Your task to perform on an android device: change keyboard looks Image 0: 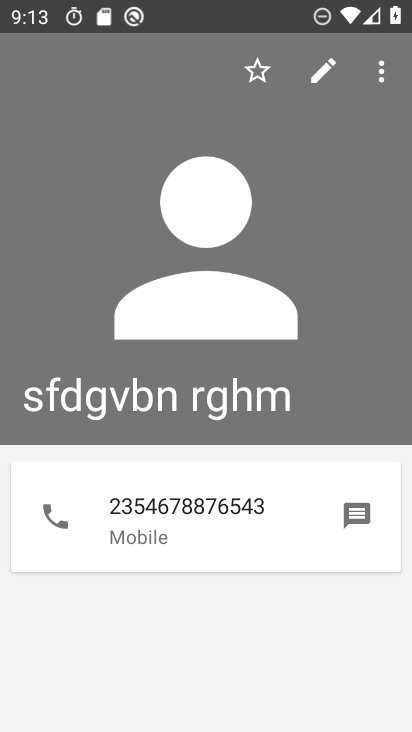
Step 0: press home button
Your task to perform on an android device: change keyboard looks Image 1: 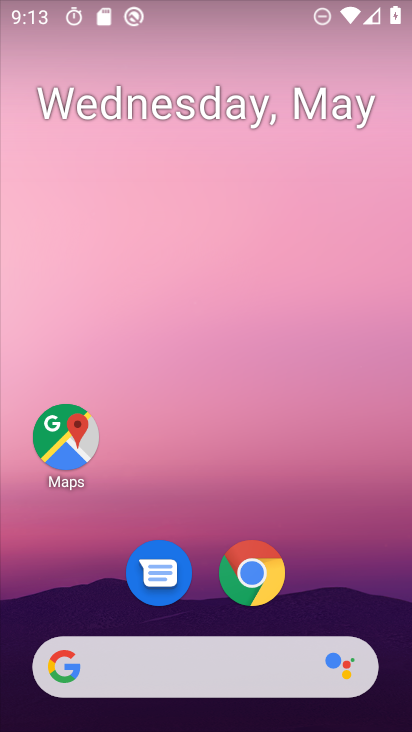
Step 1: drag from (391, 643) to (348, 146)
Your task to perform on an android device: change keyboard looks Image 2: 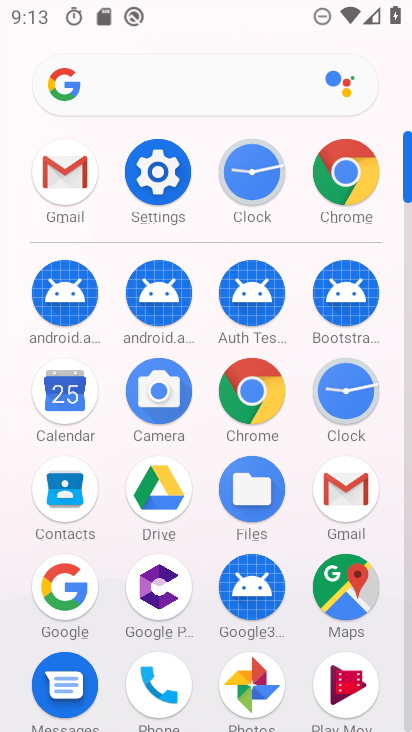
Step 2: click (157, 181)
Your task to perform on an android device: change keyboard looks Image 3: 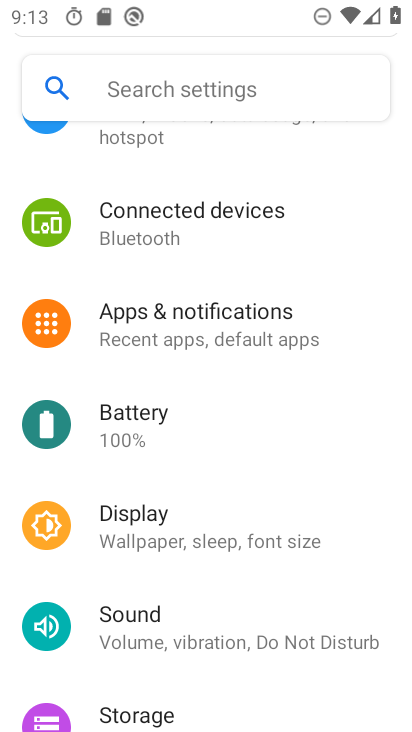
Step 3: drag from (281, 693) to (285, 321)
Your task to perform on an android device: change keyboard looks Image 4: 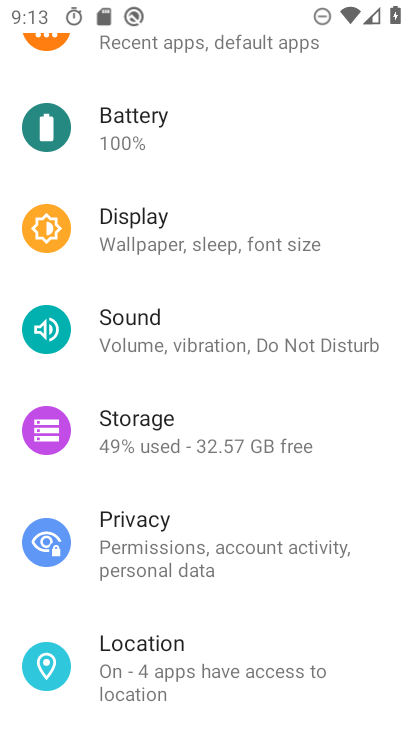
Step 4: drag from (273, 687) to (282, 362)
Your task to perform on an android device: change keyboard looks Image 5: 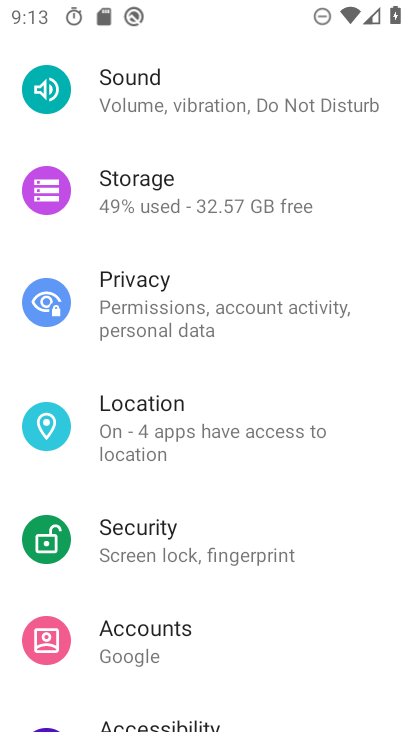
Step 5: drag from (273, 648) to (274, 372)
Your task to perform on an android device: change keyboard looks Image 6: 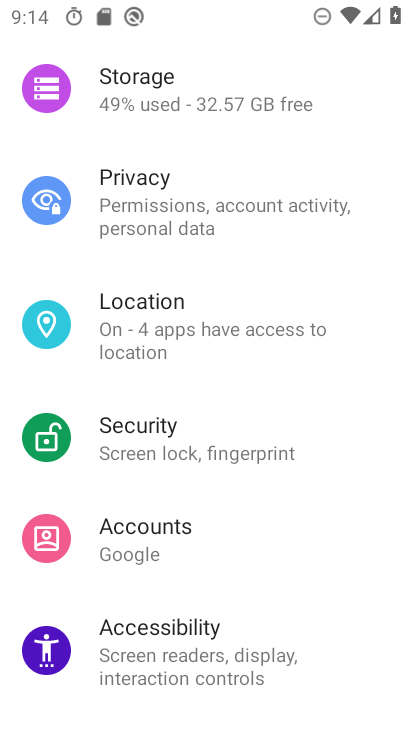
Step 6: drag from (284, 691) to (285, 428)
Your task to perform on an android device: change keyboard looks Image 7: 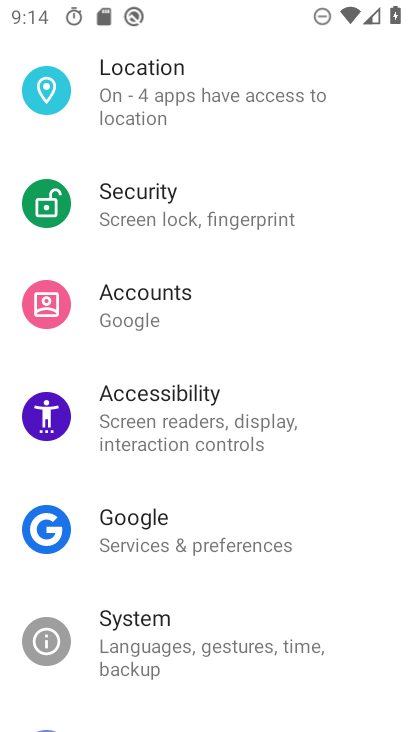
Step 7: click (169, 640)
Your task to perform on an android device: change keyboard looks Image 8: 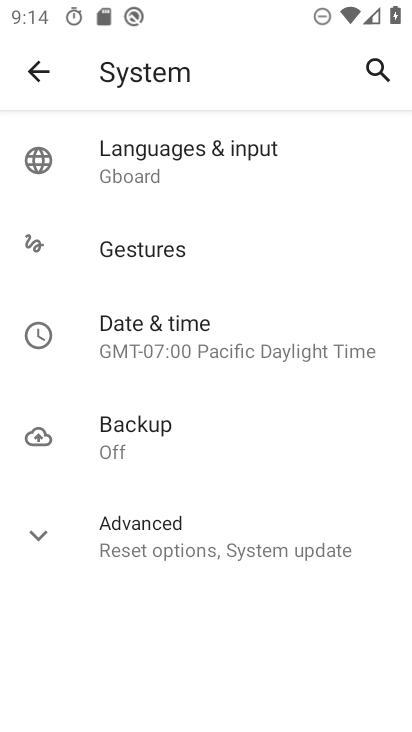
Step 8: click (161, 157)
Your task to perform on an android device: change keyboard looks Image 9: 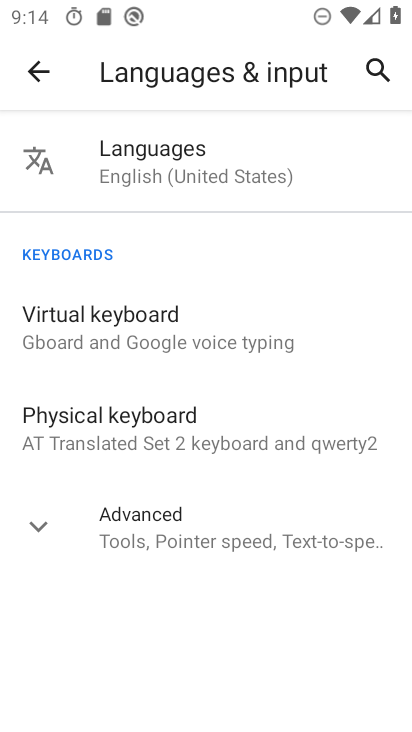
Step 9: click (131, 327)
Your task to perform on an android device: change keyboard looks Image 10: 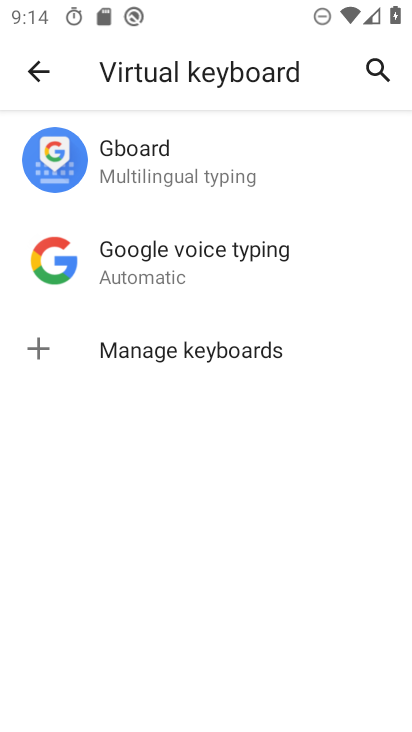
Step 10: click (132, 157)
Your task to perform on an android device: change keyboard looks Image 11: 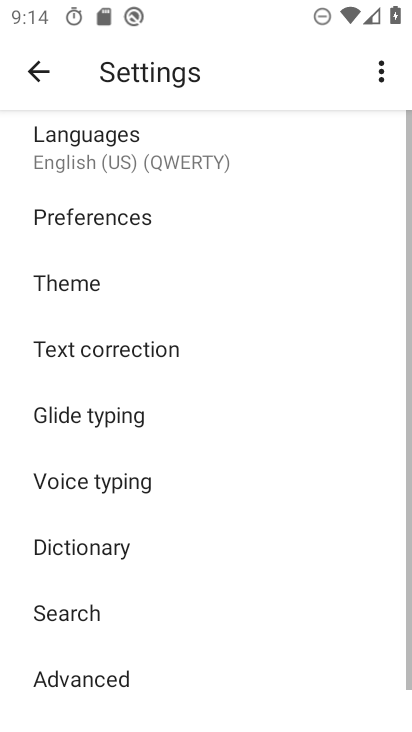
Step 11: drag from (89, 276) to (45, 276)
Your task to perform on an android device: change keyboard looks Image 12: 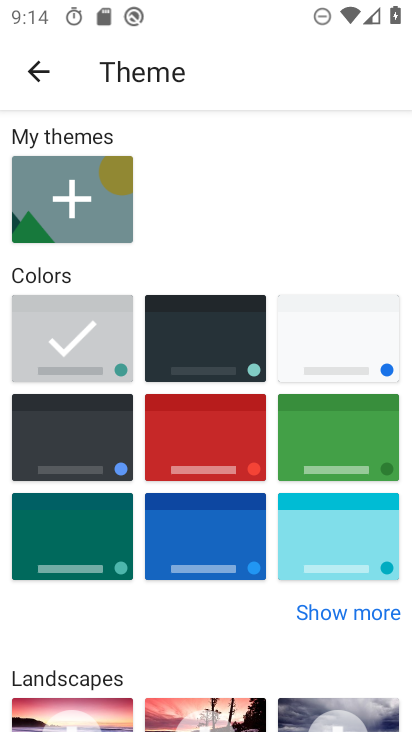
Step 12: click (299, 543)
Your task to perform on an android device: change keyboard looks Image 13: 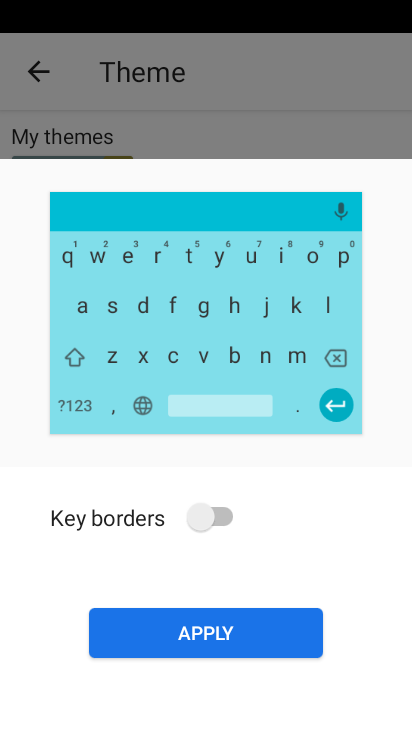
Step 13: click (215, 518)
Your task to perform on an android device: change keyboard looks Image 14: 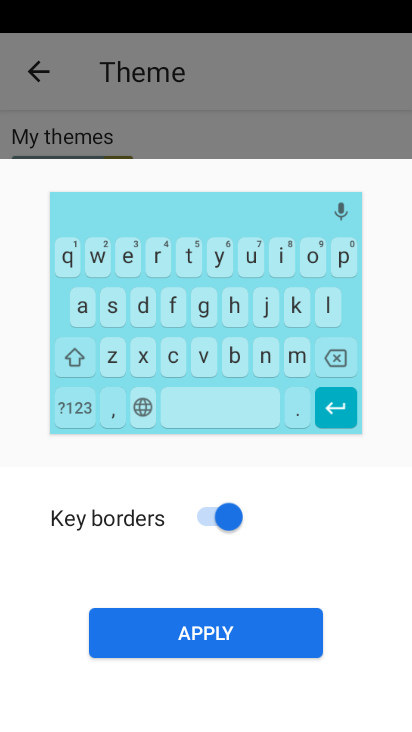
Step 14: click (275, 641)
Your task to perform on an android device: change keyboard looks Image 15: 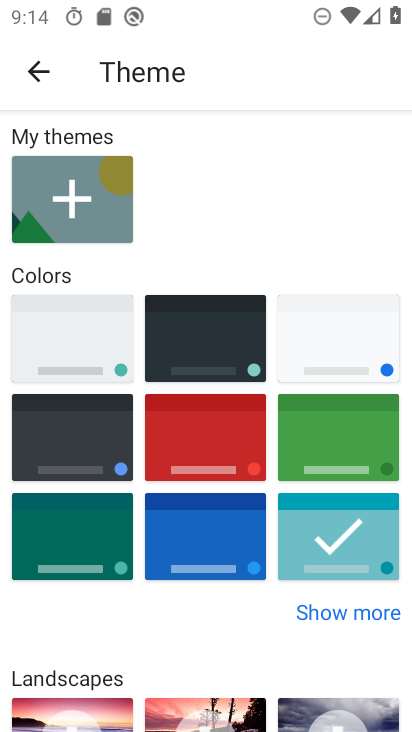
Step 15: task complete